Your task to perform on an android device: Search for the best books on Goodreads. Image 0: 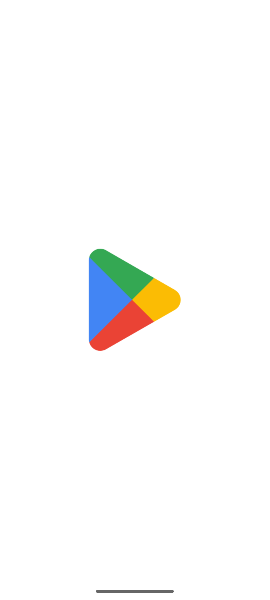
Step 0: press home button
Your task to perform on an android device: Search for the best books on Goodreads. Image 1: 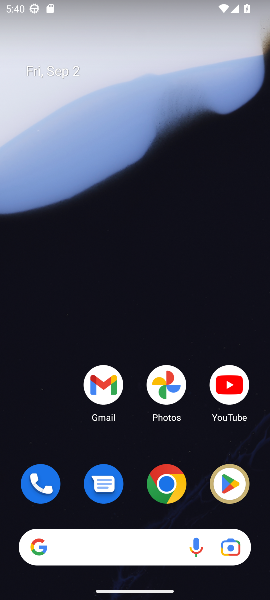
Step 1: click (168, 484)
Your task to perform on an android device: Search for the best books on Goodreads. Image 2: 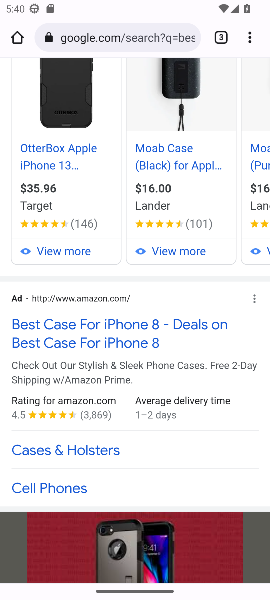
Step 2: click (133, 38)
Your task to perform on an android device: Search for the best books on Goodreads. Image 3: 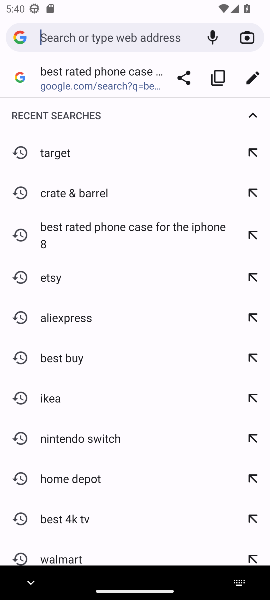
Step 3: press enter
Your task to perform on an android device: Search for the best books on Goodreads. Image 4: 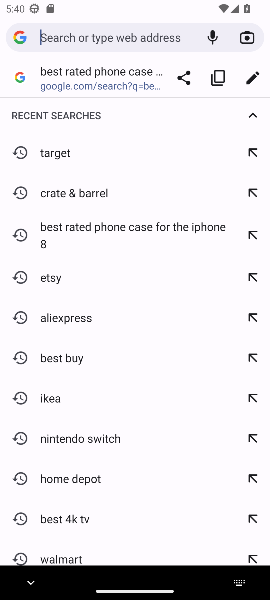
Step 4: type "Goodreads"
Your task to perform on an android device: Search for the best books on Goodreads. Image 5: 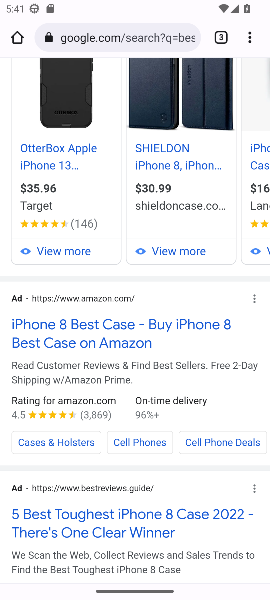
Step 5: click (155, 36)
Your task to perform on an android device: Search for the best books on Goodreads. Image 6: 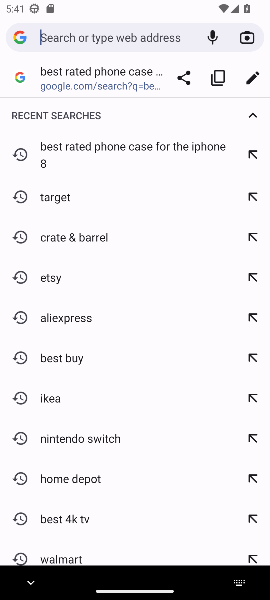
Step 6: type "Goodreads"
Your task to perform on an android device: Search for the best books on Goodreads. Image 7: 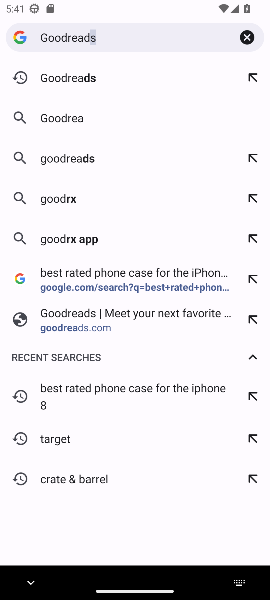
Step 7: press enter
Your task to perform on an android device: Search for the best books on Goodreads. Image 8: 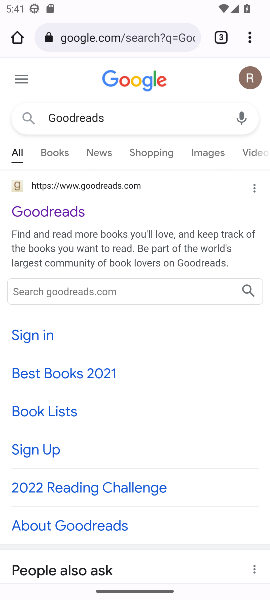
Step 8: click (61, 214)
Your task to perform on an android device: Search for the best books on Goodreads. Image 9: 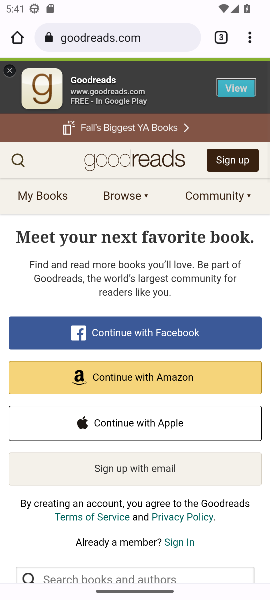
Step 9: click (18, 154)
Your task to perform on an android device: Search for the best books on Goodreads. Image 10: 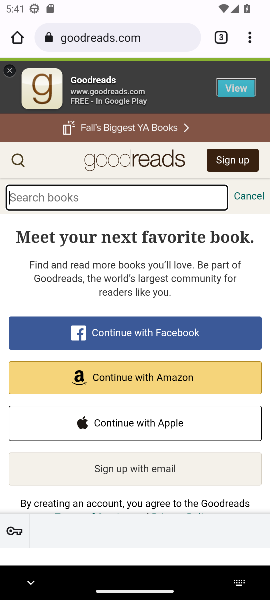
Step 10: press enter
Your task to perform on an android device: Search for the best books on Goodreads. Image 11: 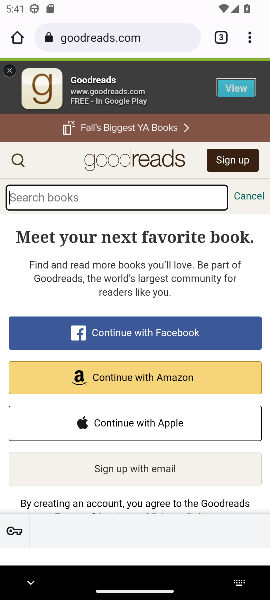
Step 11: type " best books"
Your task to perform on an android device: Search for the best books on Goodreads. Image 12: 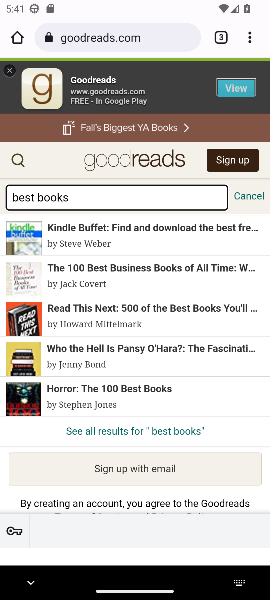
Step 12: task complete